Your task to perform on an android device: Open ESPN.com Image 0: 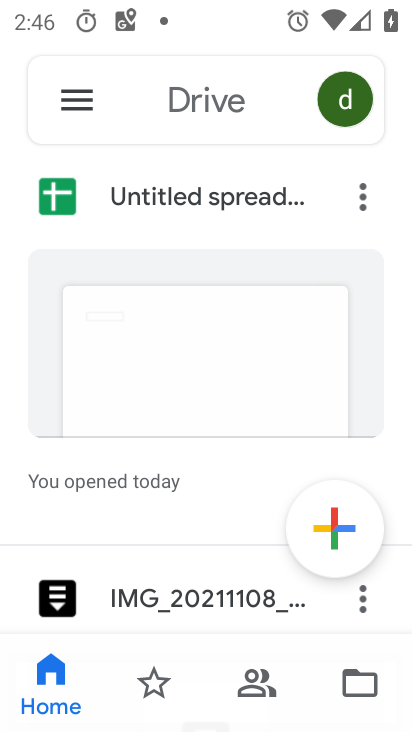
Step 0: press home button
Your task to perform on an android device: Open ESPN.com Image 1: 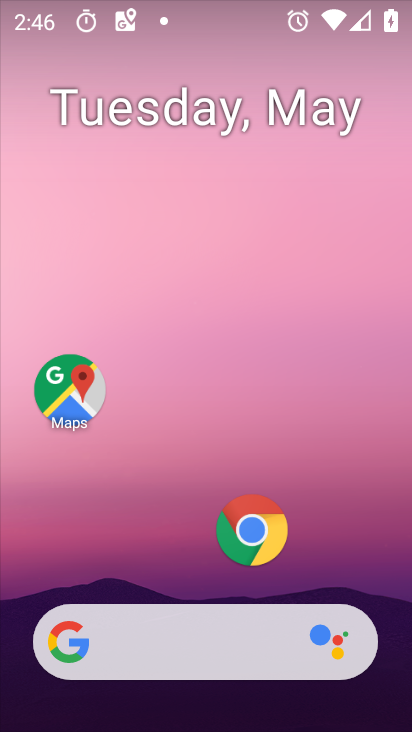
Step 1: click (248, 525)
Your task to perform on an android device: Open ESPN.com Image 2: 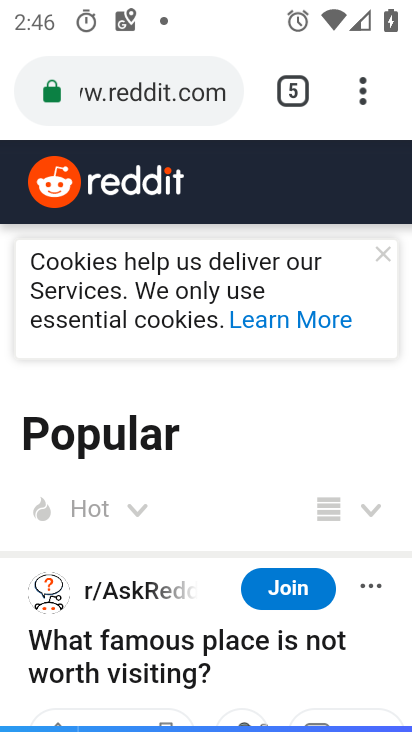
Step 2: press home button
Your task to perform on an android device: Open ESPN.com Image 3: 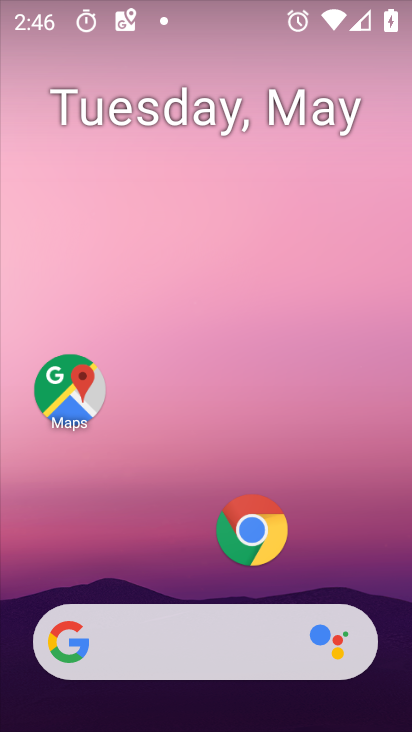
Step 3: click (243, 524)
Your task to perform on an android device: Open ESPN.com Image 4: 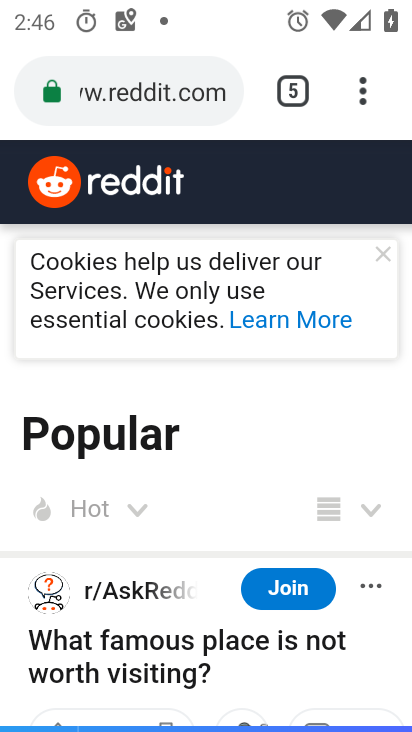
Step 4: click (297, 93)
Your task to perform on an android device: Open ESPN.com Image 5: 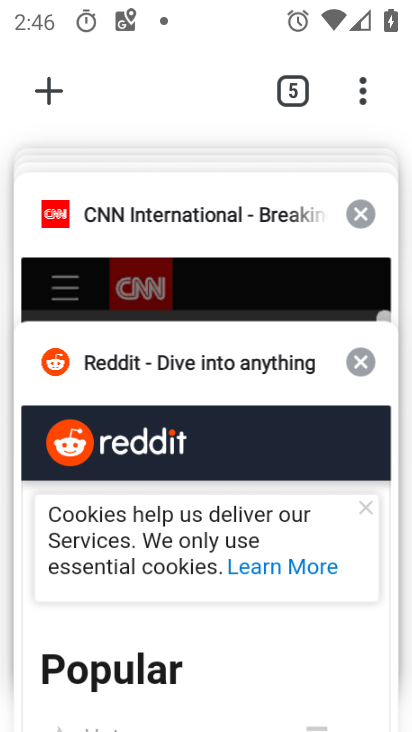
Step 5: click (41, 94)
Your task to perform on an android device: Open ESPN.com Image 6: 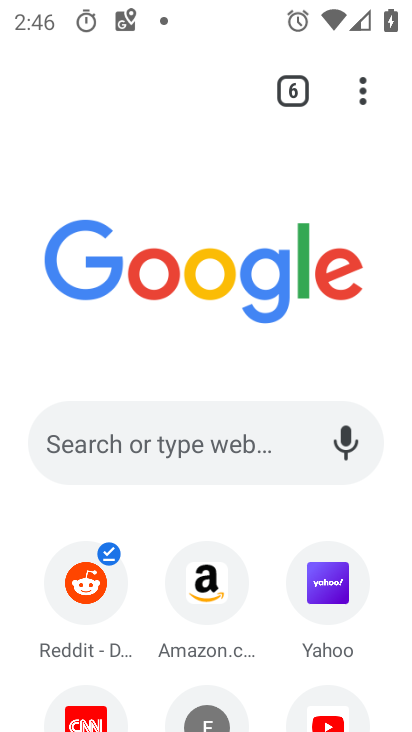
Step 6: click (218, 701)
Your task to perform on an android device: Open ESPN.com Image 7: 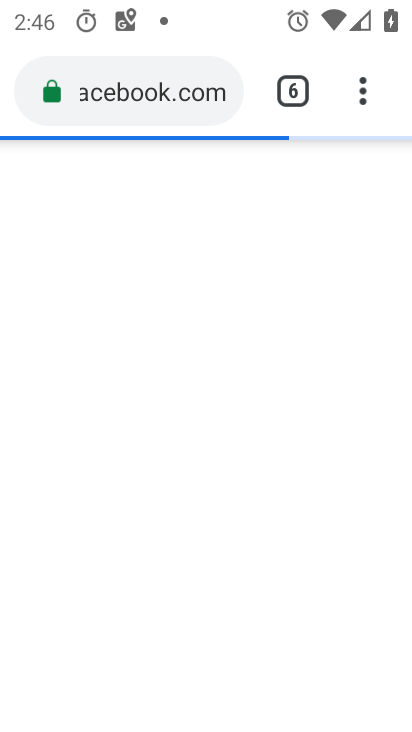
Step 7: task complete